Your task to perform on an android device: See recent photos Image 0: 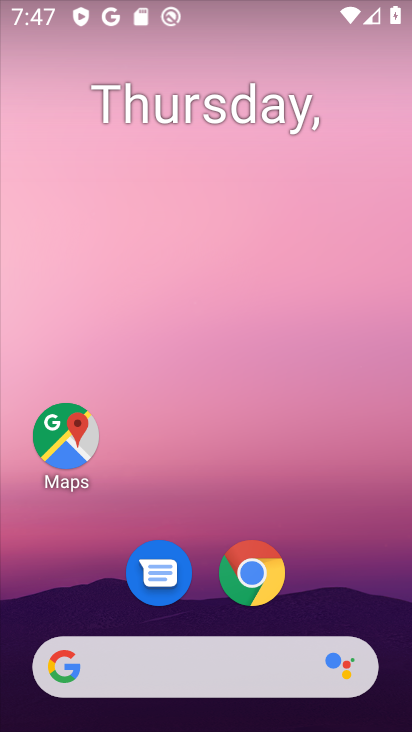
Step 0: drag from (381, 571) to (383, 168)
Your task to perform on an android device: See recent photos Image 1: 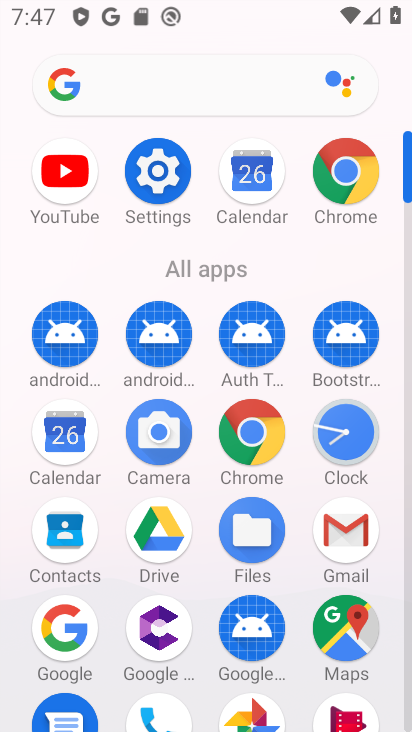
Step 1: drag from (209, 568) to (187, 94)
Your task to perform on an android device: See recent photos Image 2: 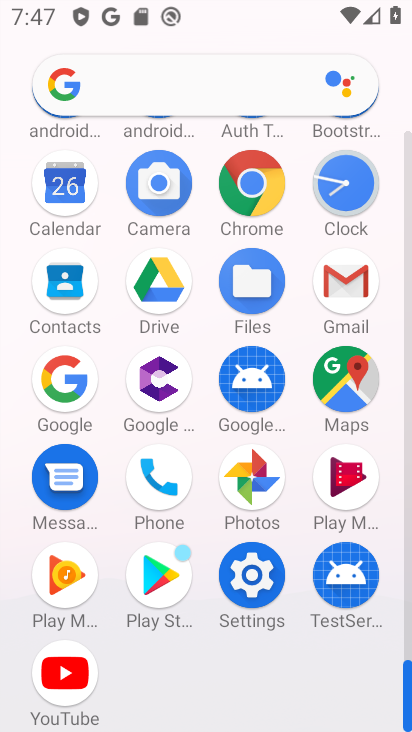
Step 2: click (246, 483)
Your task to perform on an android device: See recent photos Image 3: 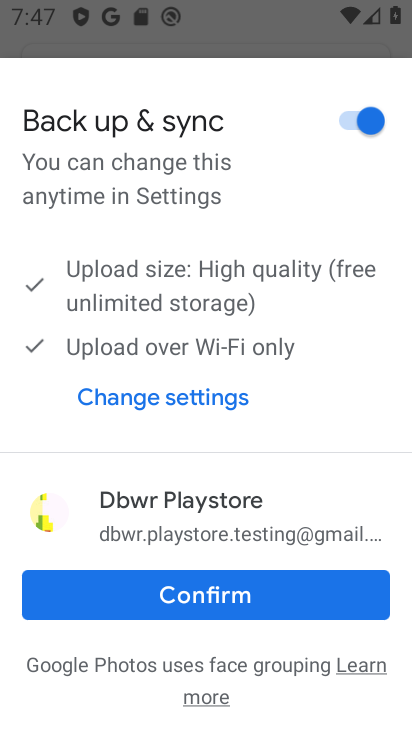
Step 3: click (164, 610)
Your task to perform on an android device: See recent photos Image 4: 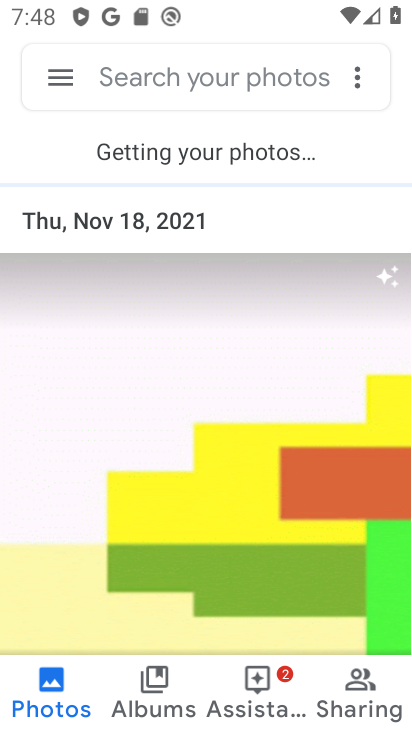
Step 4: task complete